Your task to perform on an android device: stop showing notifications on the lock screen Image 0: 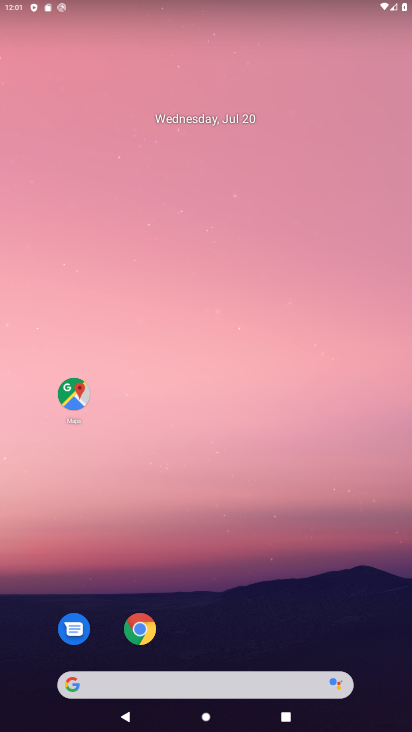
Step 0: drag from (205, 621) to (190, 15)
Your task to perform on an android device: stop showing notifications on the lock screen Image 1: 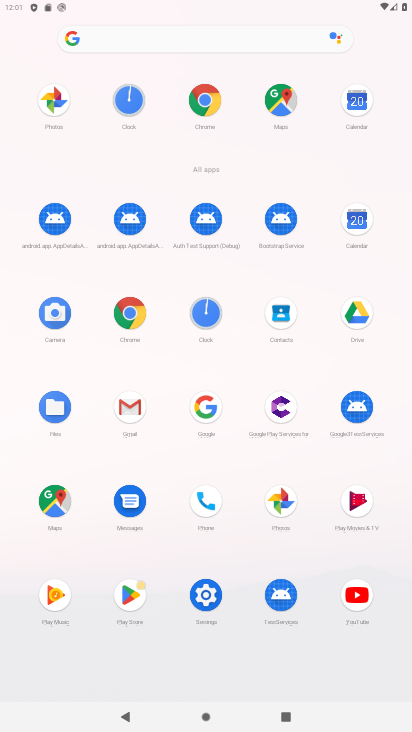
Step 1: click (200, 630)
Your task to perform on an android device: stop showing notifications on the lock screen Image 2: 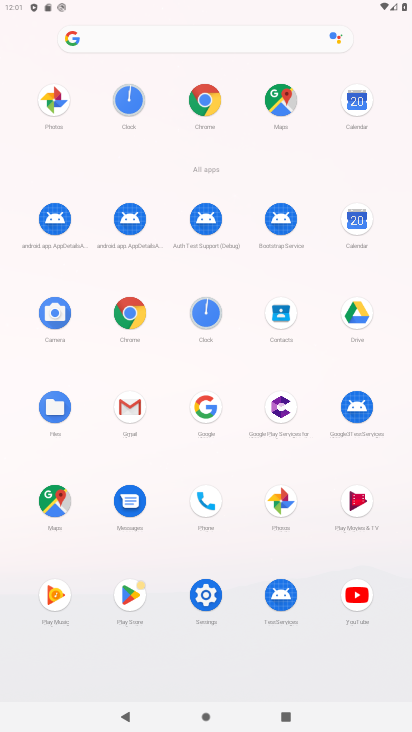
Step 2: click (200, 629)
Your task to perform on an android device: stop showing notifications on the lock screen Image 3: 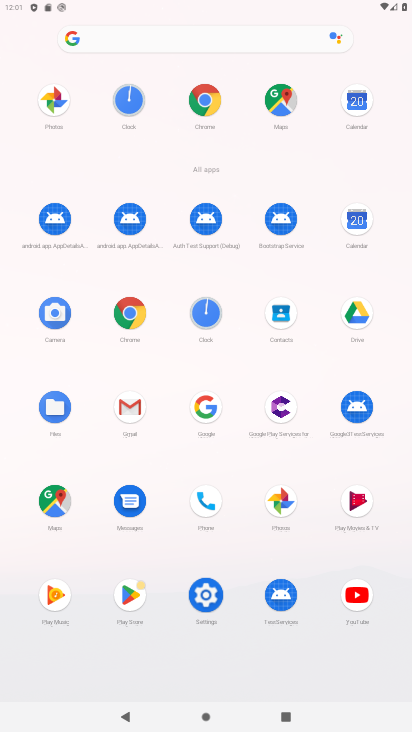
Step 3: click (202, 610)
Your task to perform on an android device: stop showing notifications on the lock screen Image 4: 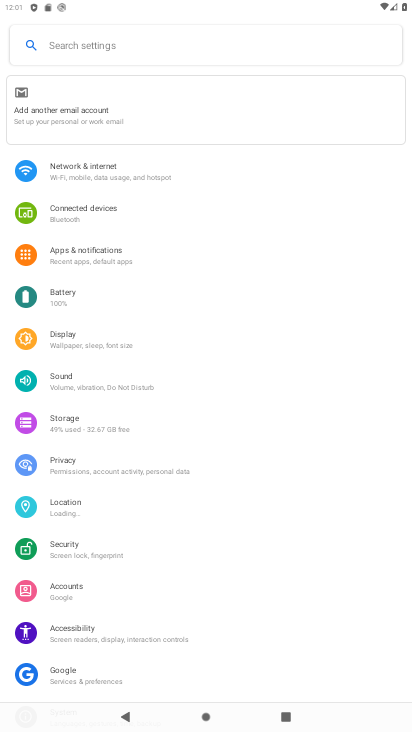
Step 4: click (105, 261)
Your task to perform on an android device: stop showing notifications on the lock screen Image 5: 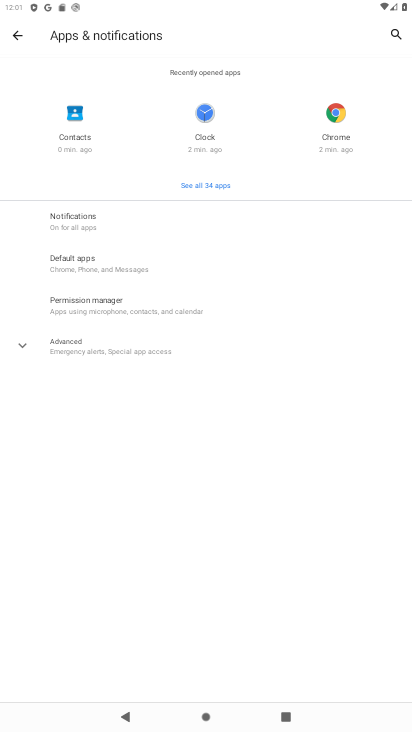
Step 5: click (125, 212)
Your task to perform on an android device: stop showing notifications on the lock screen Image 6: 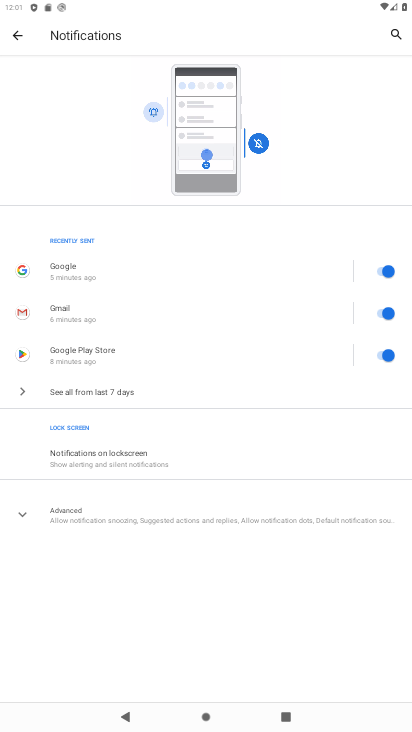
Step 6: click (155, 451)
Your task to perform on an android device: stop showing notifications on the lock screen Image 7: 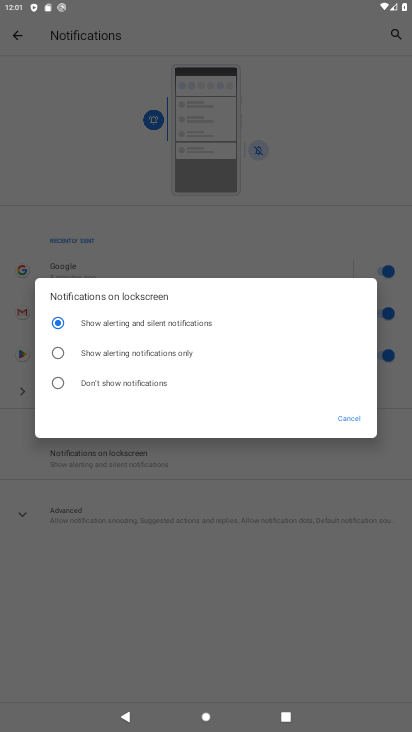
Step 7: click (69, 374)
Your task to perform on an android device: stop showing notifications on the lock screen Image 8: 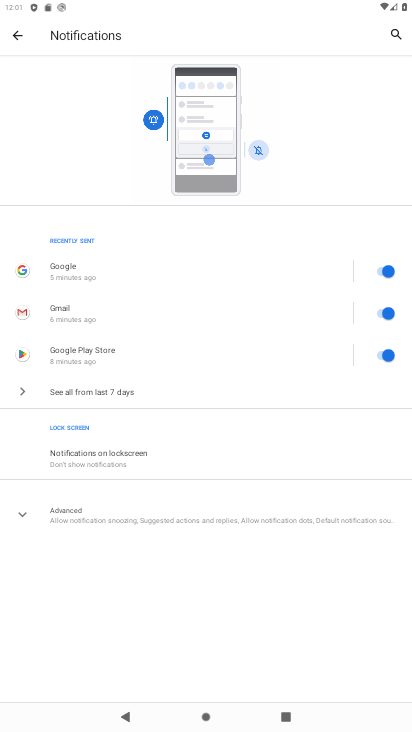
Step 8: task complete